Your task to perform on an android device: turn vacation reply on in the gmail app Image 0: 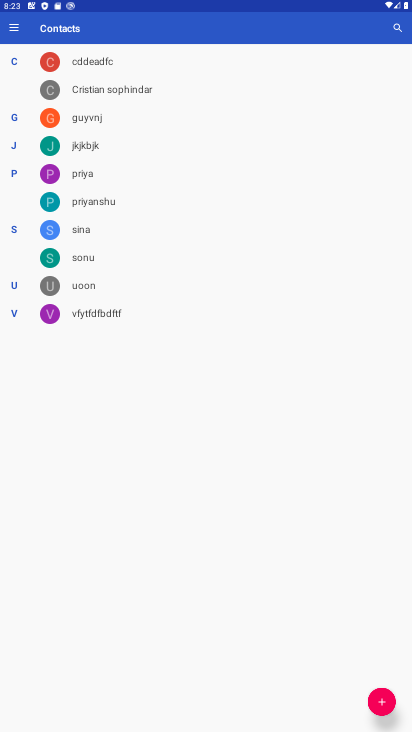
Step 0: press home button
Your task to perform on an android device: turn vacation reply on in the gmail app Image 1: 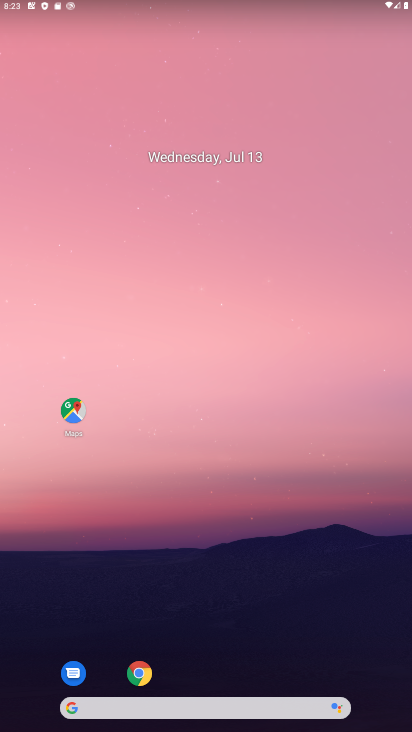
Step 1: drag from (352, 657) to (279, 172)
Your task to perform on an android device: turn vacation reply on in the gmail app Image 2: 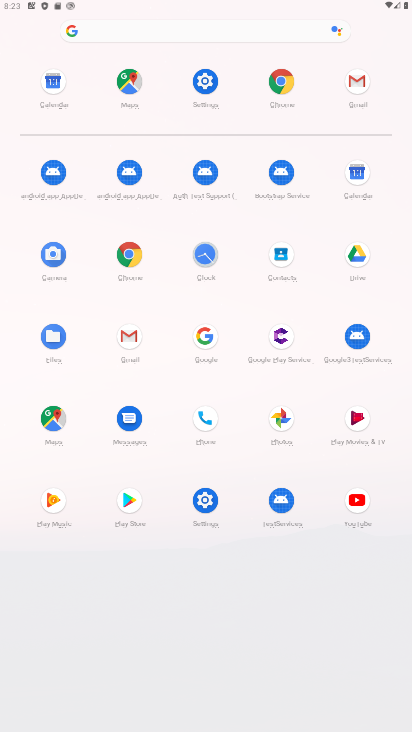
Step 2: click (125, 338)
Your task to perform on an android device: turn vacation reply on in the gmail app Image 3: 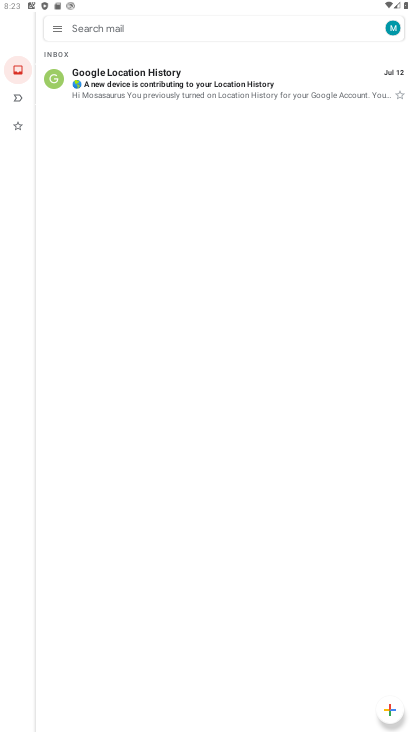
Step 3: click (60, 26)
Your task to perform on an android device: turn vacation reply on in the gmail app Image 4: 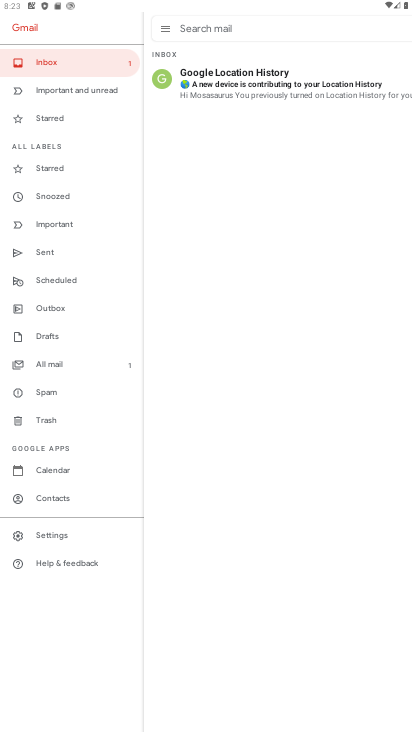
Step 4: click (67, 536)
Your task to perform on an android device: turn vacation reply on in the gmail app Image 5: 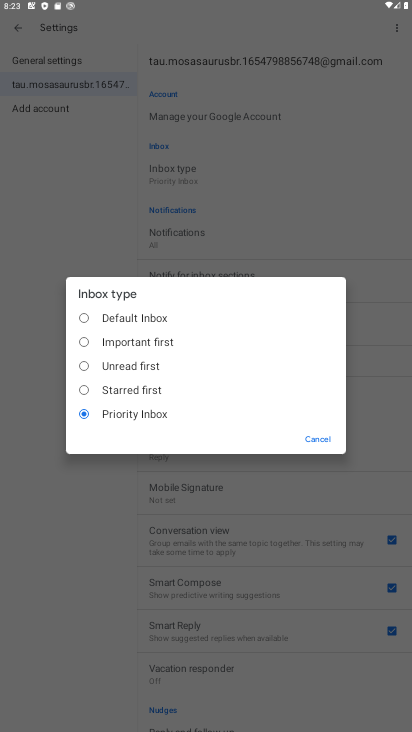
Step 5: click (310, 441)
Your task to perform on an android device: turn vacation reply on in the gmail app Image 6: 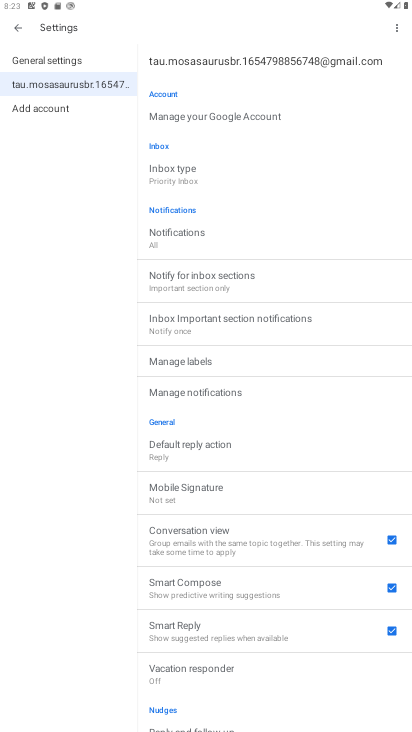
Step 6: drag from (336, 640) to (310, 216)
Your task to perform on an android device: turn vacation reply on in the gmail app Image 7: 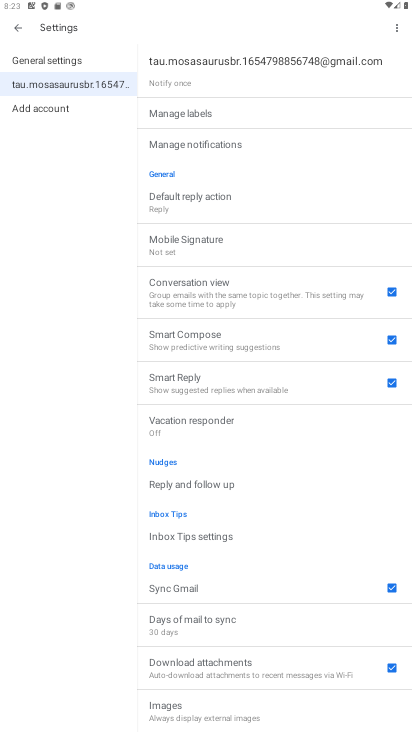
Step 7: drag from (259, 567) to (293, 392)
Your task to perform on an android device: turn vacation reply on in the gmail app Image 8: 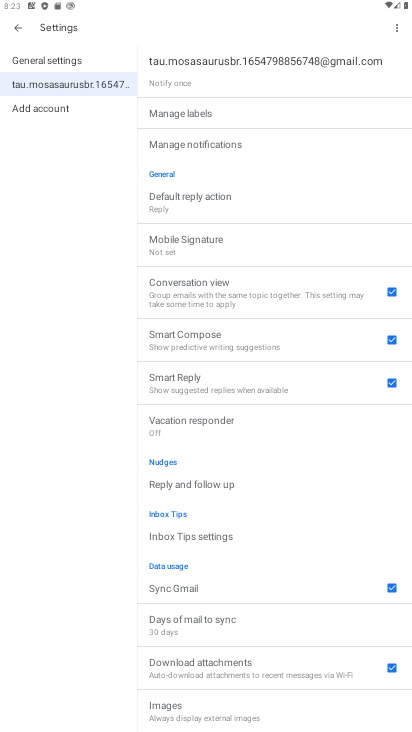
Step 8: click (212, 421)
Your task to perform on an android device: turn vacation reply on in the gmail app Image 9: 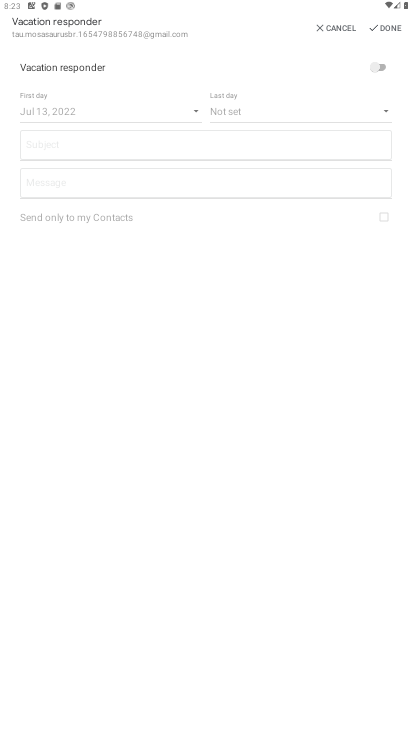
Step 9: click (371, 72)
Your task to perform on an android device: turn vacation reply on in the gmail app Image 10: 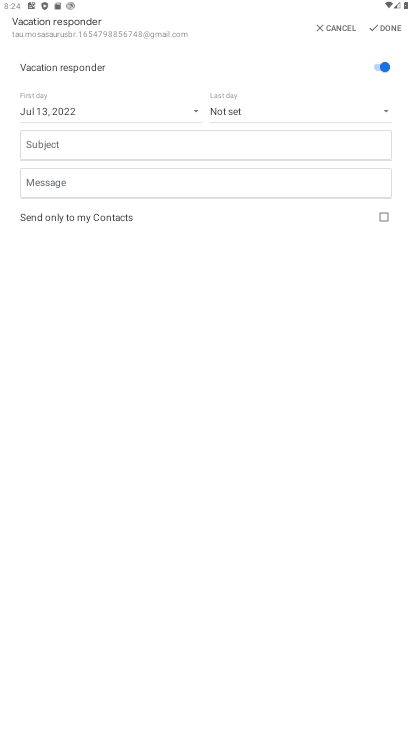
Step 10: task complete